Your task to perform on an android device: toggle location history Image 0: 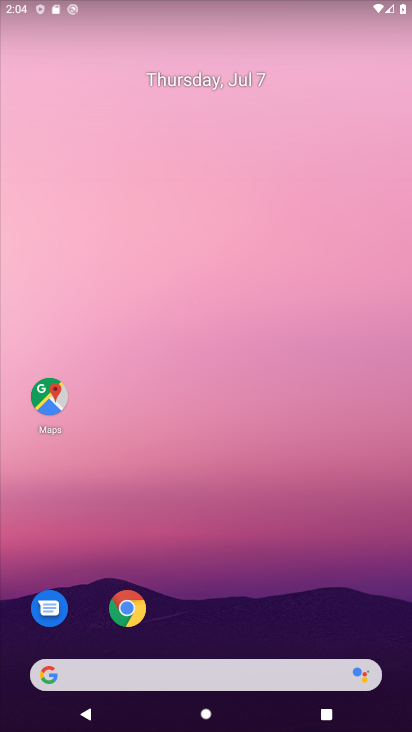
Step 0: drag from (228, 670) to (310, 118)
Your task to perform on an android device: toggle location history Image 1: 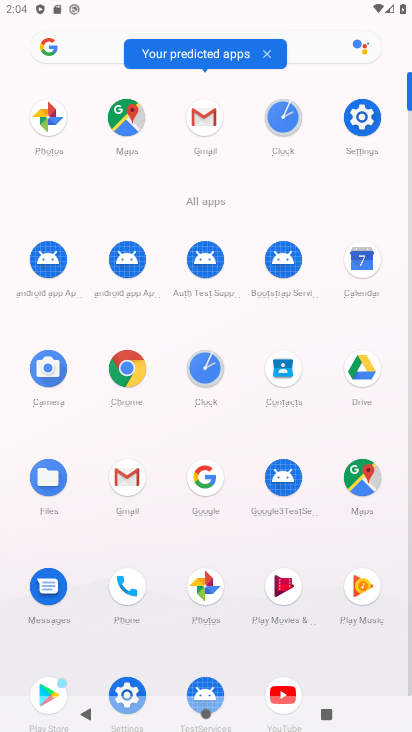
Step 1: click (361, 118)
Your task to perform on an android device: toggle location history Image 2: 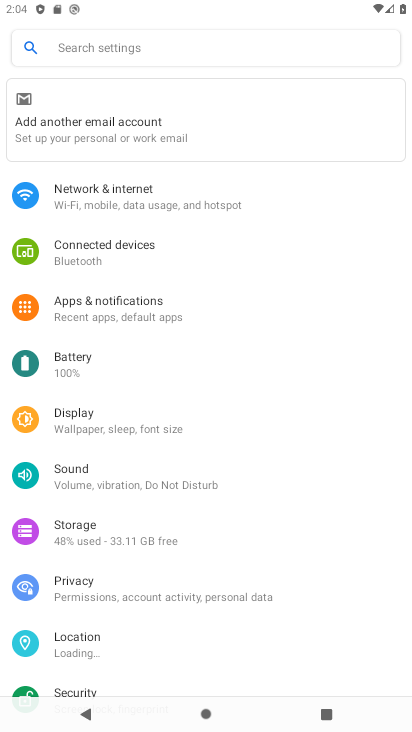
Step 2: click (82, 644)
Your task to perform on an android device: toggle location history Image 3: 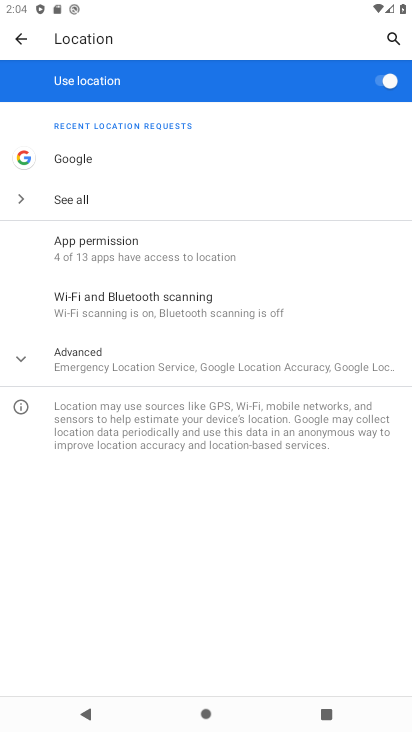
Step 3: click (138, 366)
Your task to perform on an android device: toggle location history Image 4: 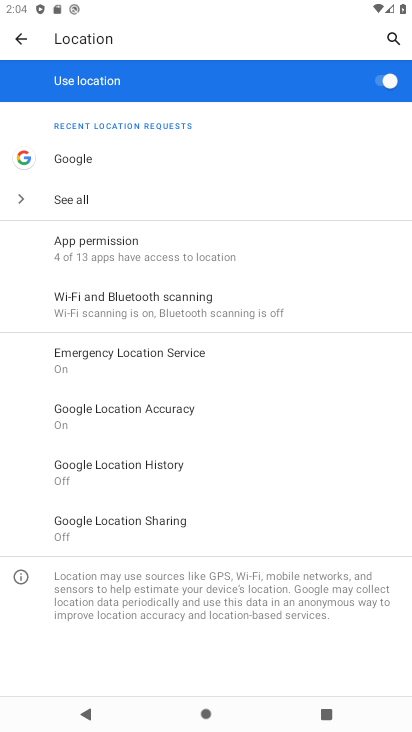
Step 4: click (162, 468)
Your task to perform on an android device: toggle location history Image 5: 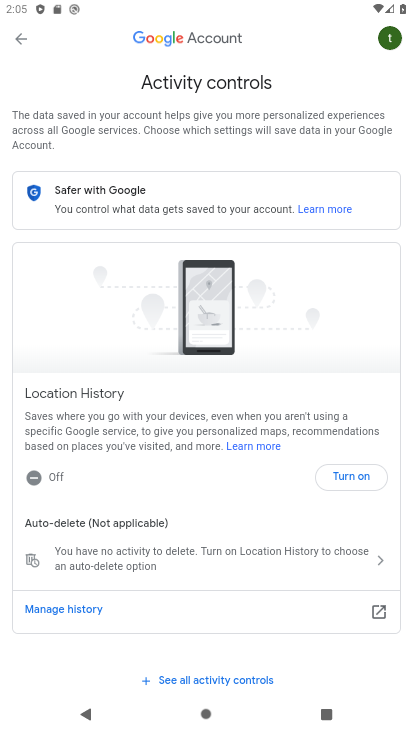
Step 5: drag from (172, 528) to (267, 264)
Your task to perform on an android device: toggle location history Image 6: 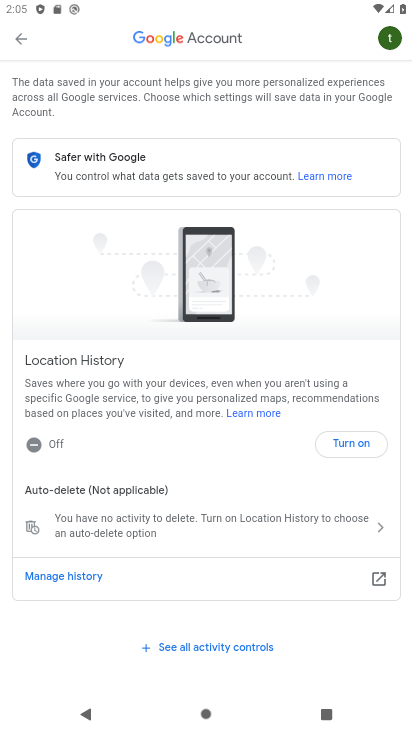
Step 6: click (225, 578)
Your task to perform on an android device: toggle location history Image 7: 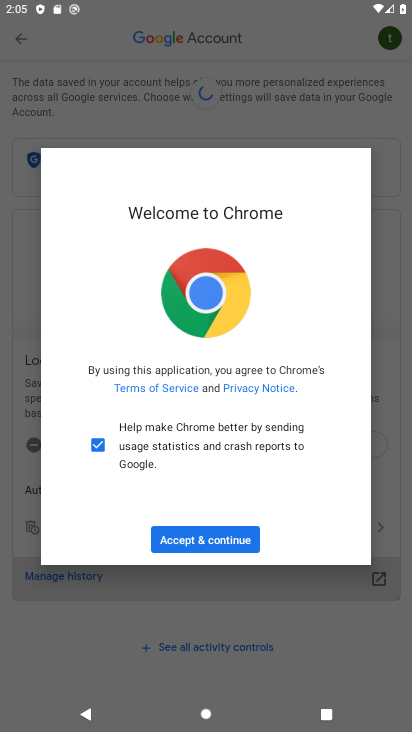
Step 7: click (276, 593)
Your task to perform on an android device: toggle location history Image 8: 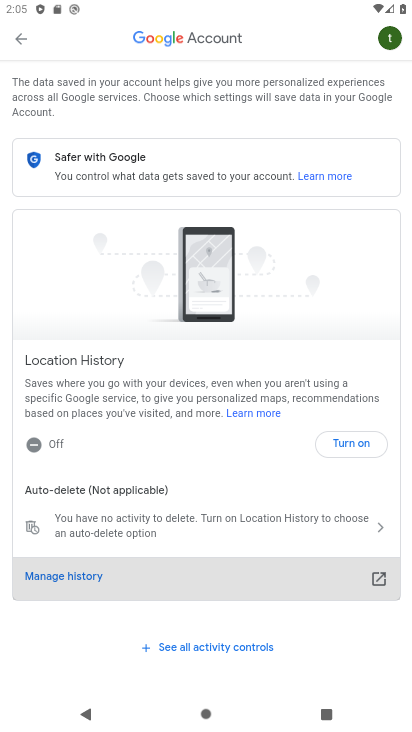
Step 8: click (361, 439)
Your task to perform on an android device: toggle location history Image 9: 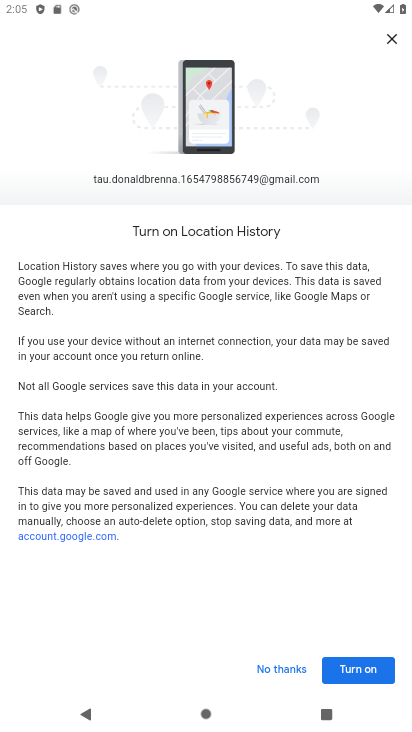
Step 9: drag from (199, 548) to (318, 197)
Your task to perform on an android device: toggle location history Image 10: 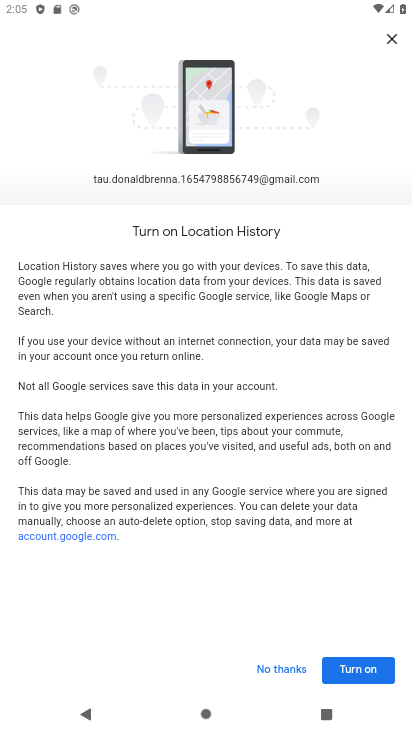
Step 10: click (360, 675)
Your task to perform on an android device: toggle location history Image 11: 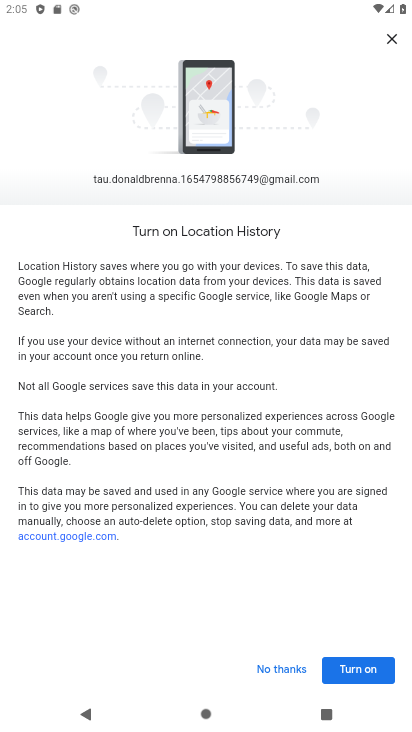
Step 11: click (360, 666)
Your task to perform on an android device: toggle location history Image 12: 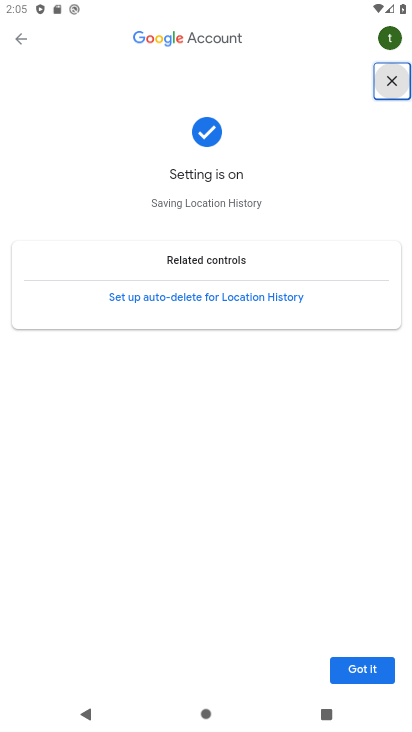
Step 12: click (360, 666)
Your task to perform on an android device: toggle location history Image 13: 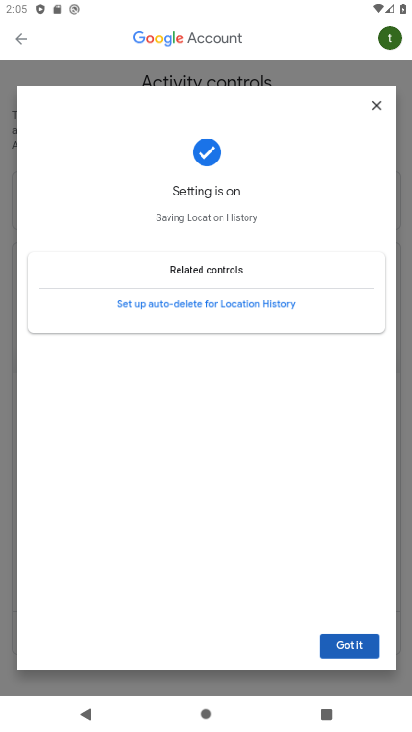
Step 13: task complete